Your task to perform on an android device: allow notifications from all sites in the chrome app Image 0: 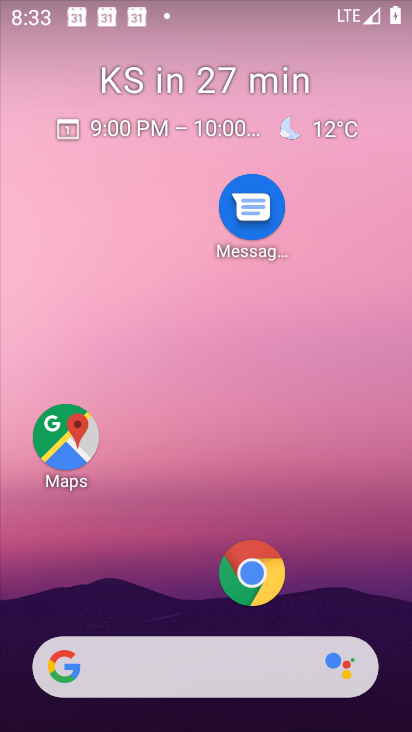
Step 0: click (246, 575)
Your task to perform on an android device: allow notifications from all sites in the chrome app Image 1: 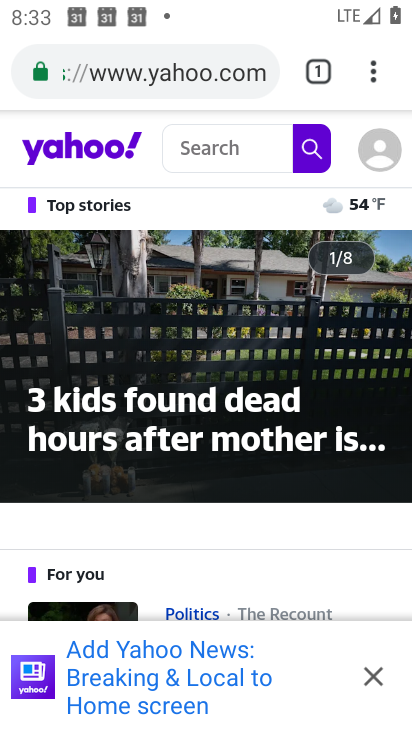
Step 1: click (369, 63)
Your task to perform on an android device: allow notifications from all sites in the chrome app Image 2: 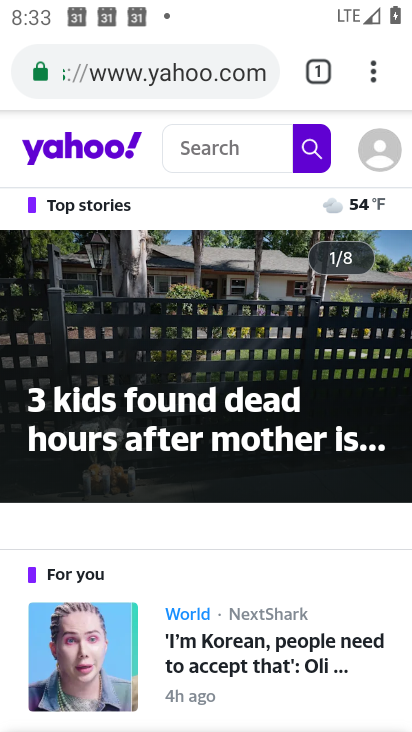
Step 2: click (364, 69)
Your task to perform on an android device: allow notifications from all sites in the chrome app Image 3: 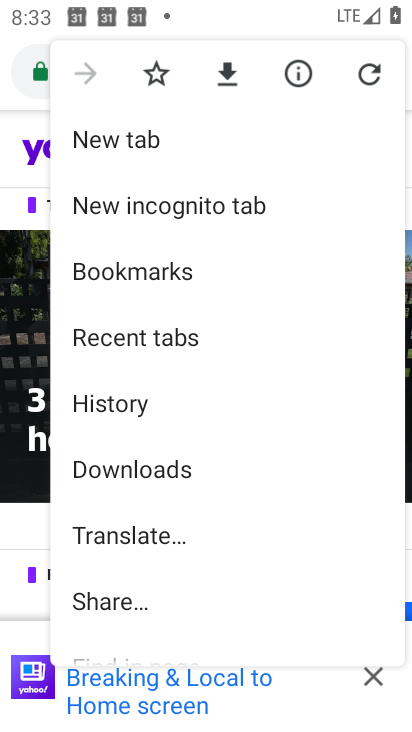
Step 3: drag from (228, 535) to (210, 55)
Your task to perform on an android device: allow notifications from all sites in the chrome app Image 4: 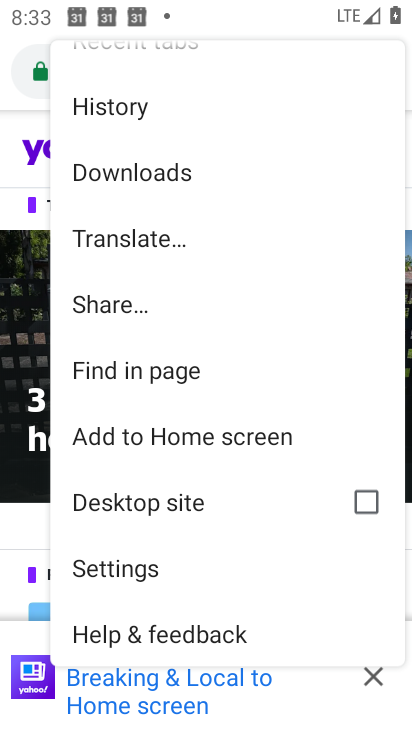
Step 4: click (168, 566)
Your task to perform on an android device: allow notifications from all sites in the chrome app Image 5: 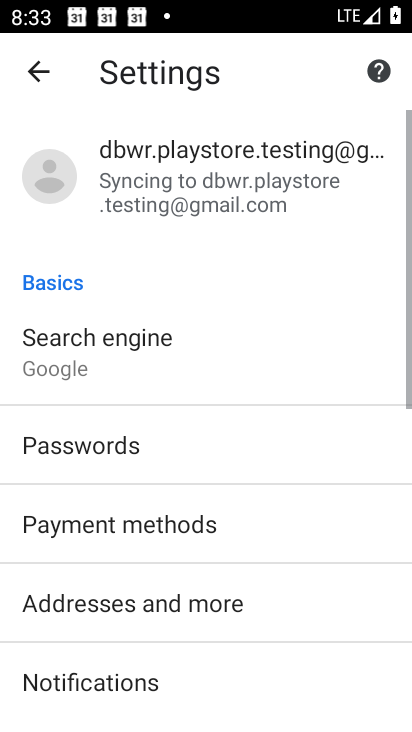
Step 5: drag from (256, 602) to (266, 173)
Your task to perform on an android device: allow notifications from all sites in the chrome app Image 6: 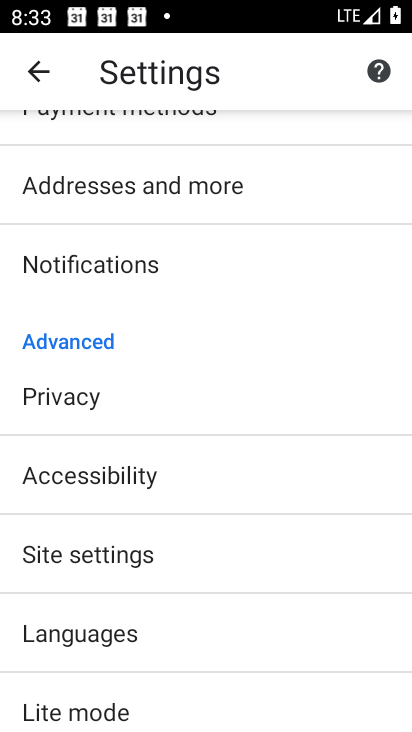
Step 6: drag from (242, 558) to (259, 309)
Your task to perform on an android device: allow notifications from all sites in the chrome app Image 7: 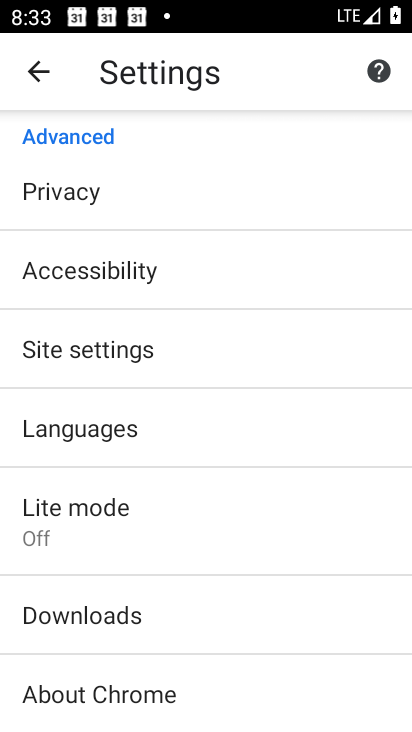
Step 7: click (85, 332)
Your task to perform on an android device: allow notifications from all sites in the chrome app Image 8: 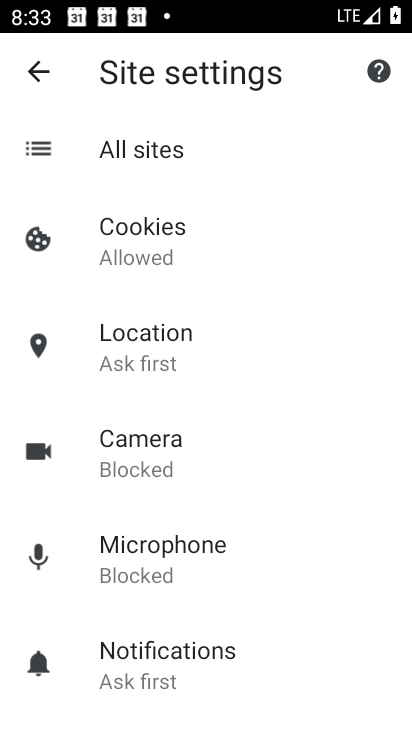
Step 8: click (160, 682)
Your task to perform on an android device: allow notifications from all sites in the chrome app Image 9: 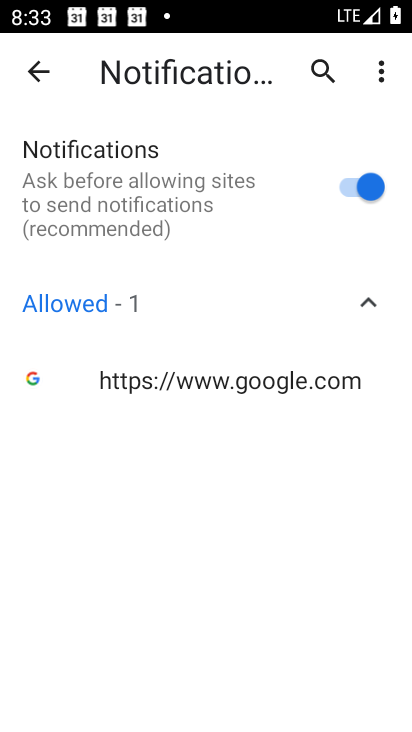
Step 9: task complete